Your task to perform on an android device: search for starred emails in the gmail app Image 0: 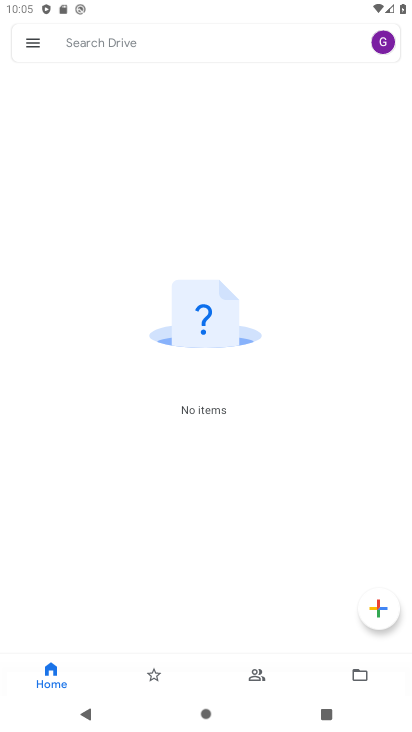
Step 0: press home button
Your task to perform on an android device: search for starred emails in the gmail app Image 1: 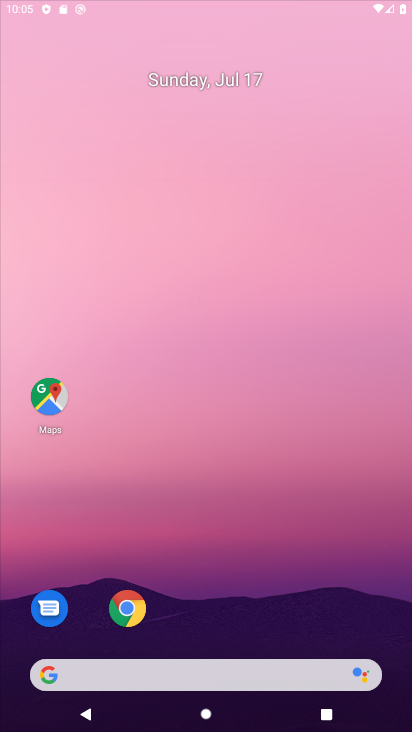
Step 1: drag from (366, 613) to (187, 5)
Your task to perform on an android device: search for starred emails in the gmail app Image 2: 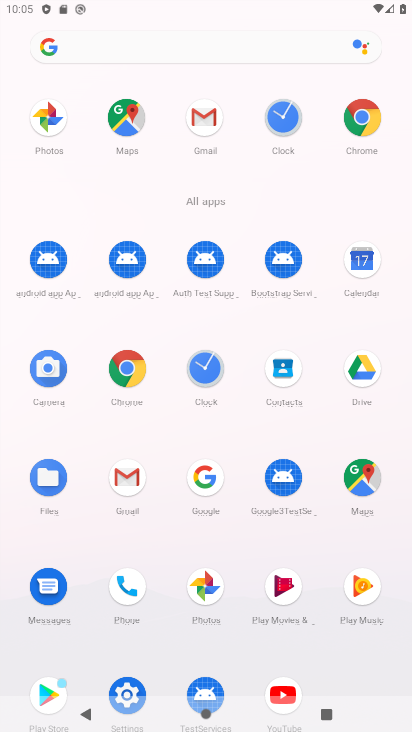
Step 2: click (136, 483)
Your task to perform on an android device: search for starred emails in the gmail app Image 3: 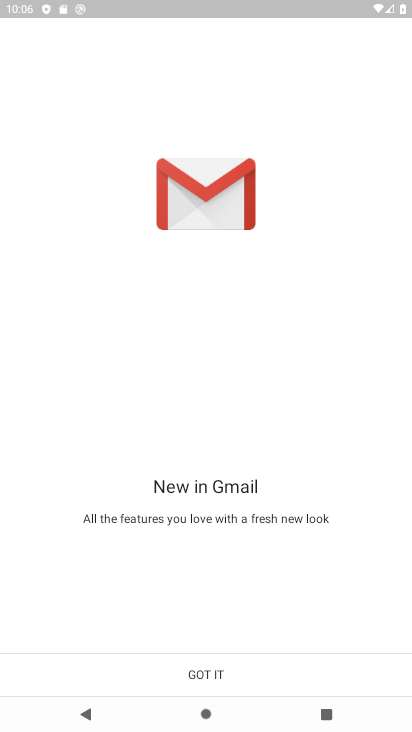
Step 3: click (185, 680)
Your task to perform on an android device: search for starred emails in the gmail app Image 4: 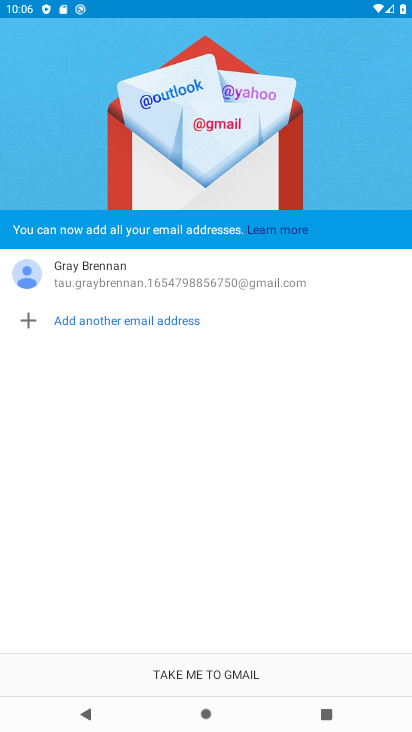
Step 4: click (185, 680)
Your task to perform on an android device: search for starred emails in the gmail app Image 5: 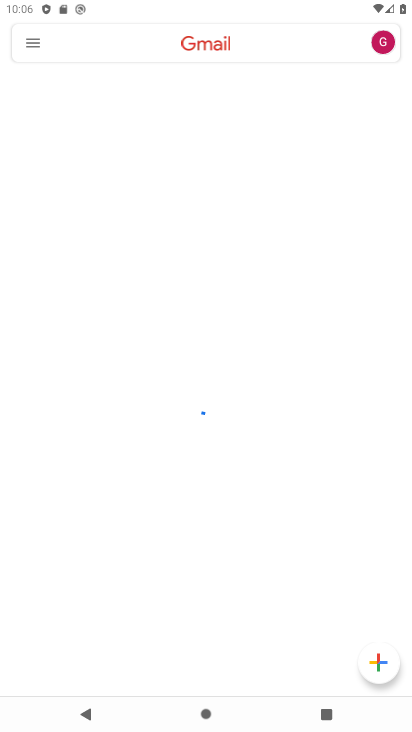
Step 5: click (33, 42)
Your task to perform on an android device: search for starred emails in the gmail app Image 6: 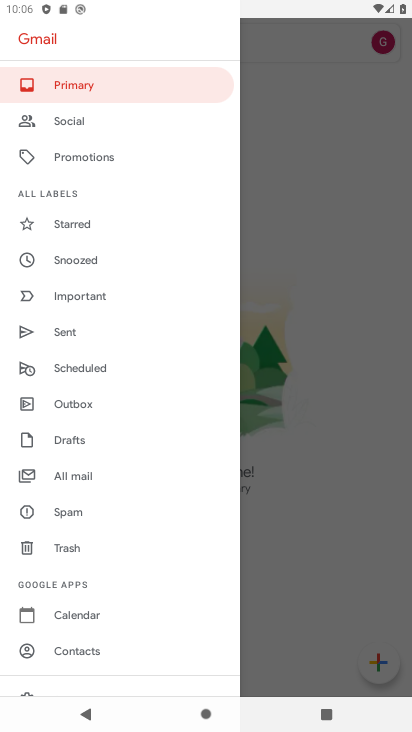
Step 6: click (72, 225)
Your task to perform on an android device: search for starred emails in the gmail app Image 7: 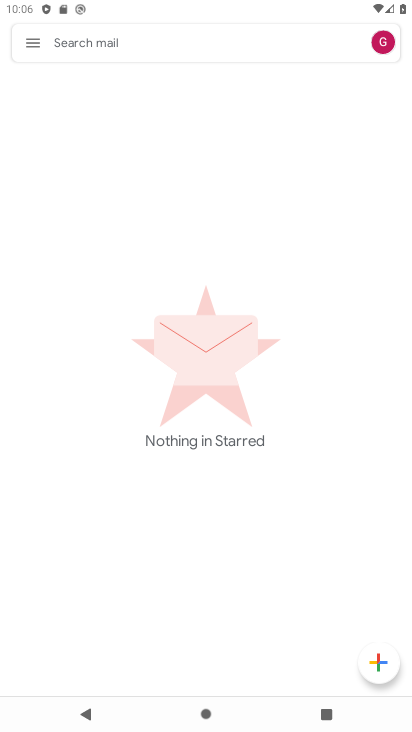
Step 7: task complete